Your task to perform on an android device: Do I have any events today? Image 0: 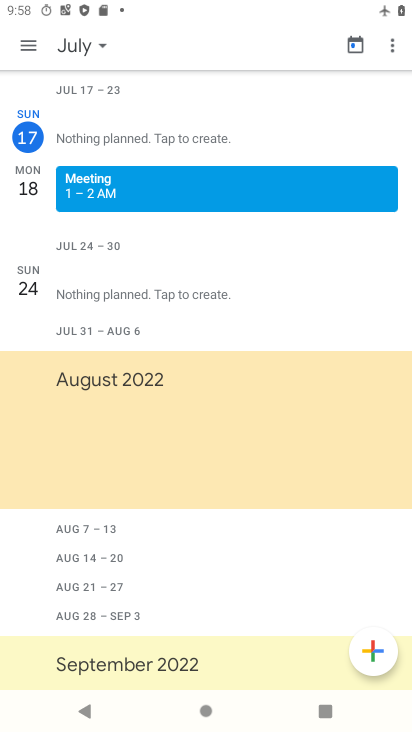
Step 0: press home button
Your task to perform on an android device: Do I have any events today? Image 1: 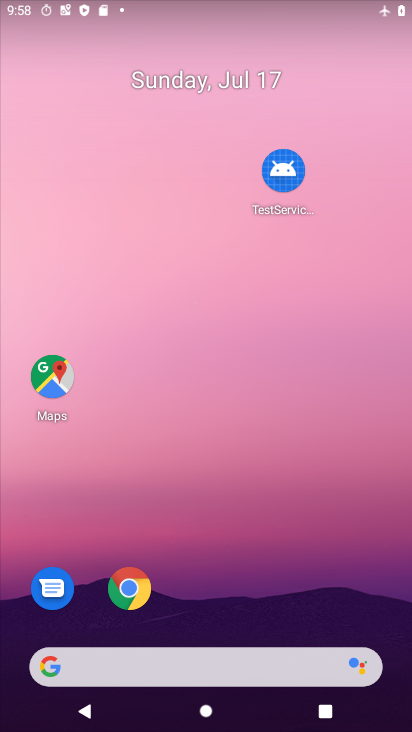
Step 1: drag from (177, 621) to (289, 32)
Your task to perform on an android device: Do I have any events today? Image 2: 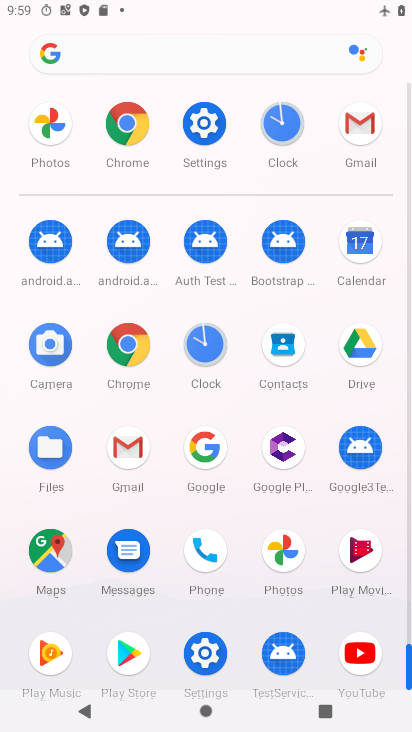
Step 2: click (364, 253)
Your task to perform on an android device: Do I have any events today? Image 3: 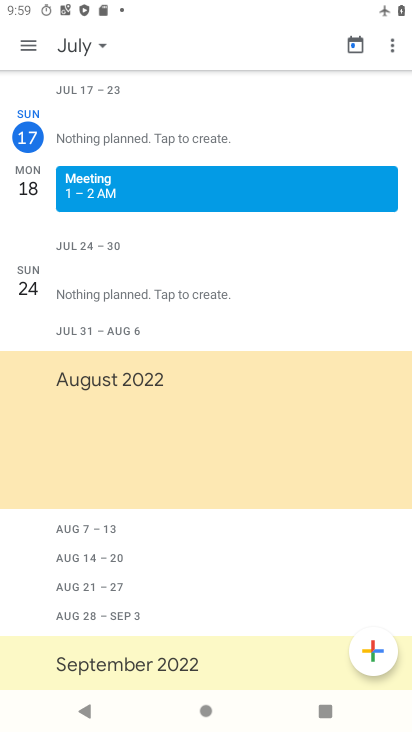
Step 3: task complete